Your task to perform on an android device: find snoozed emails in the gmail app Image 0: 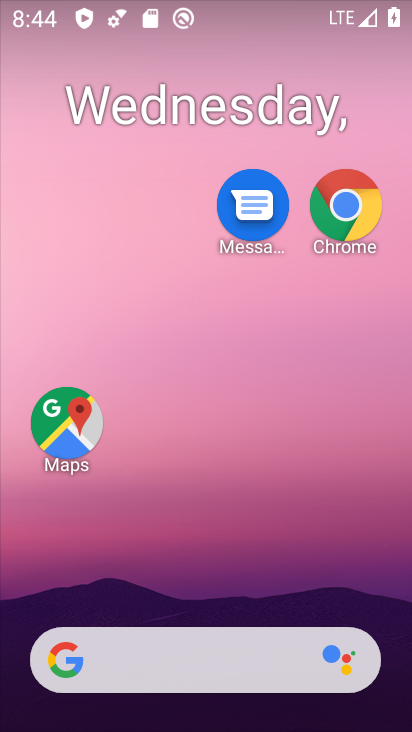
Step 0: click (372, 333)
Your task to perform on an android device: find snoozed emails in the gmail app Image 1: 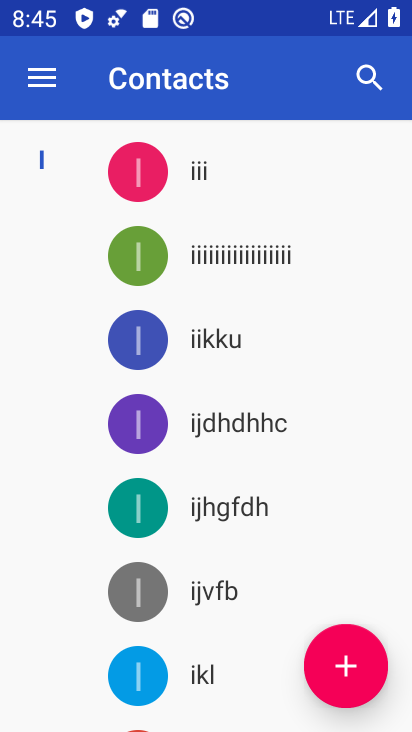
Step 1: press home button
Your task to perform on an android device: find snoozed emails in the gmail app Image 2: 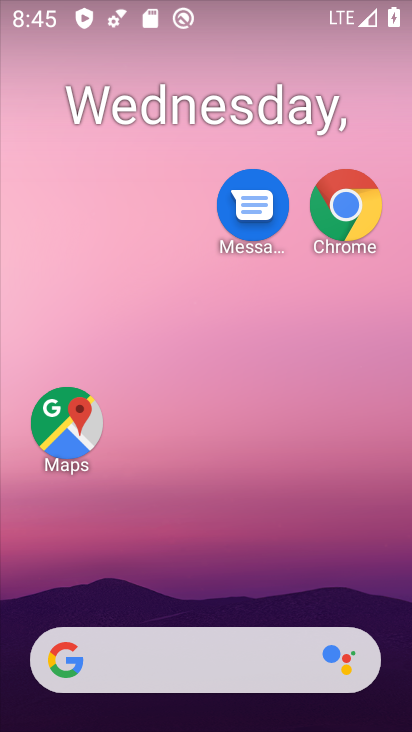
Step 2: drag from (205, 574) to (240, 175)
Your task to perform on an android device: find snoozed emails in the gmail app Image 3: 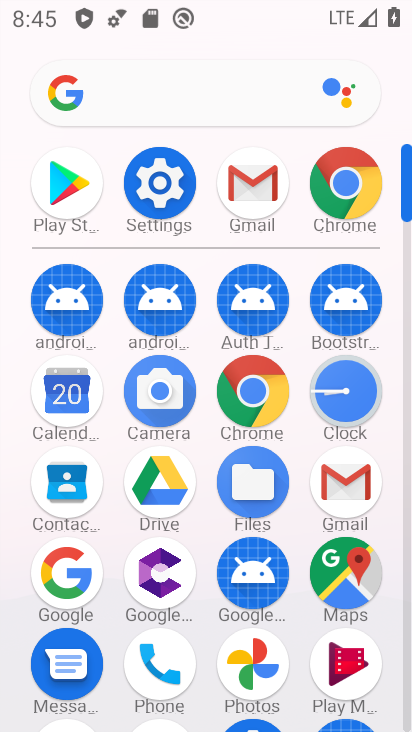
Step 3: click (347, 475)
Your task to perform on an android device: find snoozed emails in the gmail app Image 4: 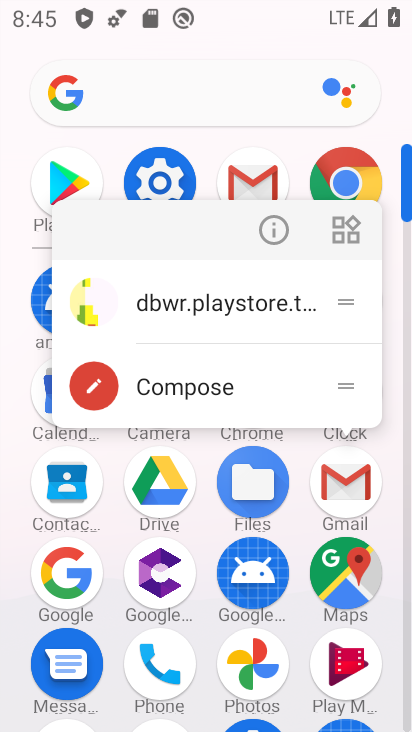
Step 4: click (276, 238)
Your task to perform on an android device: find snoozed emails in the gmail app Image 5: 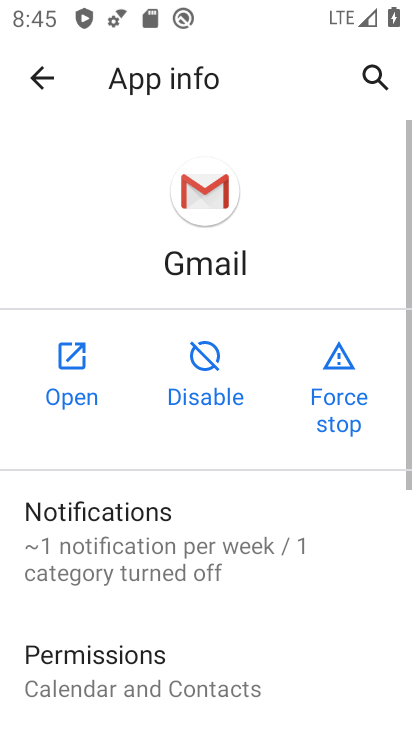
Step 5: click (67, 372)
Your task to perform on an android device: find snoozed emails in the gmail app Image 6: 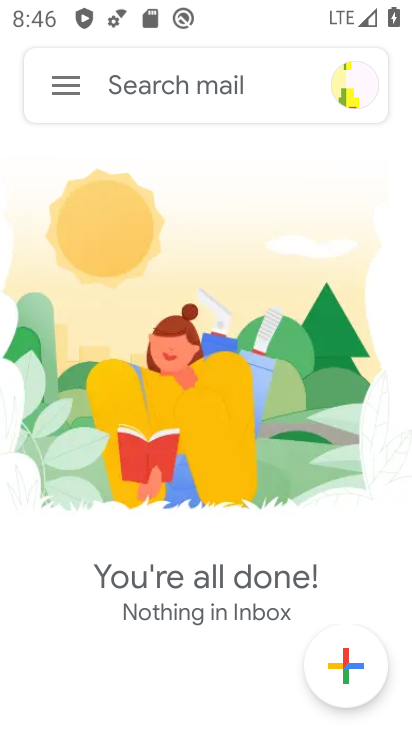
Step 6: click (68, 99)
Your task to perform on an android device: find snoozed emails in the gmail app Image 7: 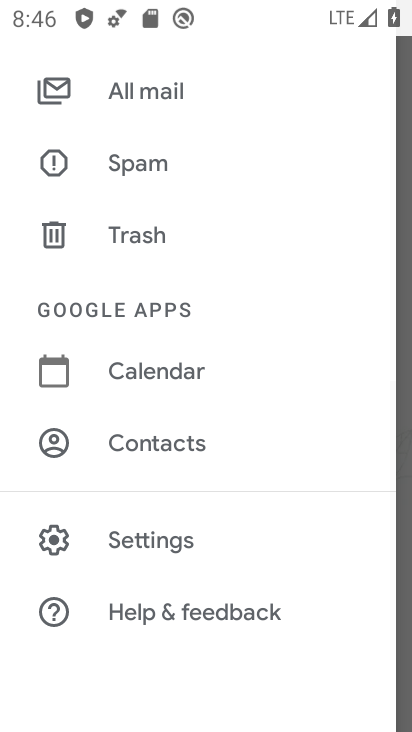
Step 7: drag from (236, 157) to (251, 713)
Your task to perform on an android device: find snoozed emails in the gmail app Image 8: 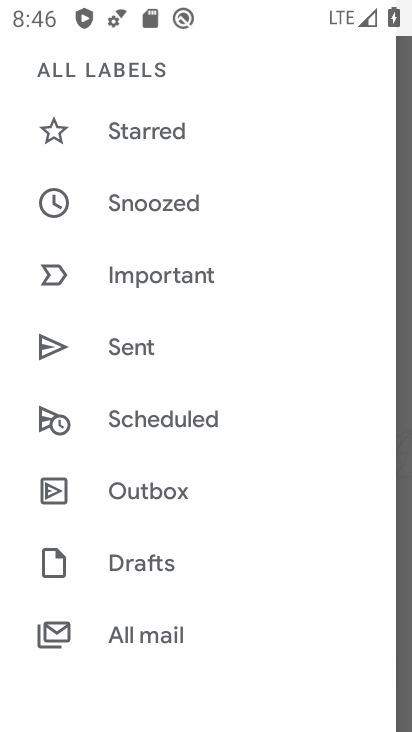
Step 8: click (191, 195)
Your task to perform on an android device: find snoozed emails in the gmail app Image 9: 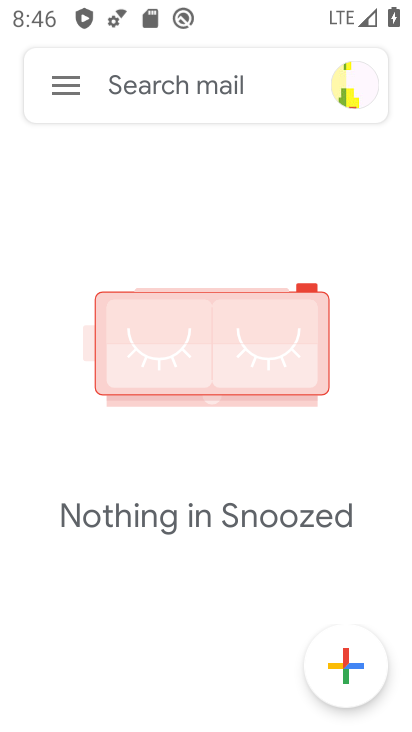
Step 9: task complete